Your task to perform on an android device: Show the shopping cart on walmart.com. Search for "razer naga" on walmart.com, select the first entry, and add it to the cart. Image 0: 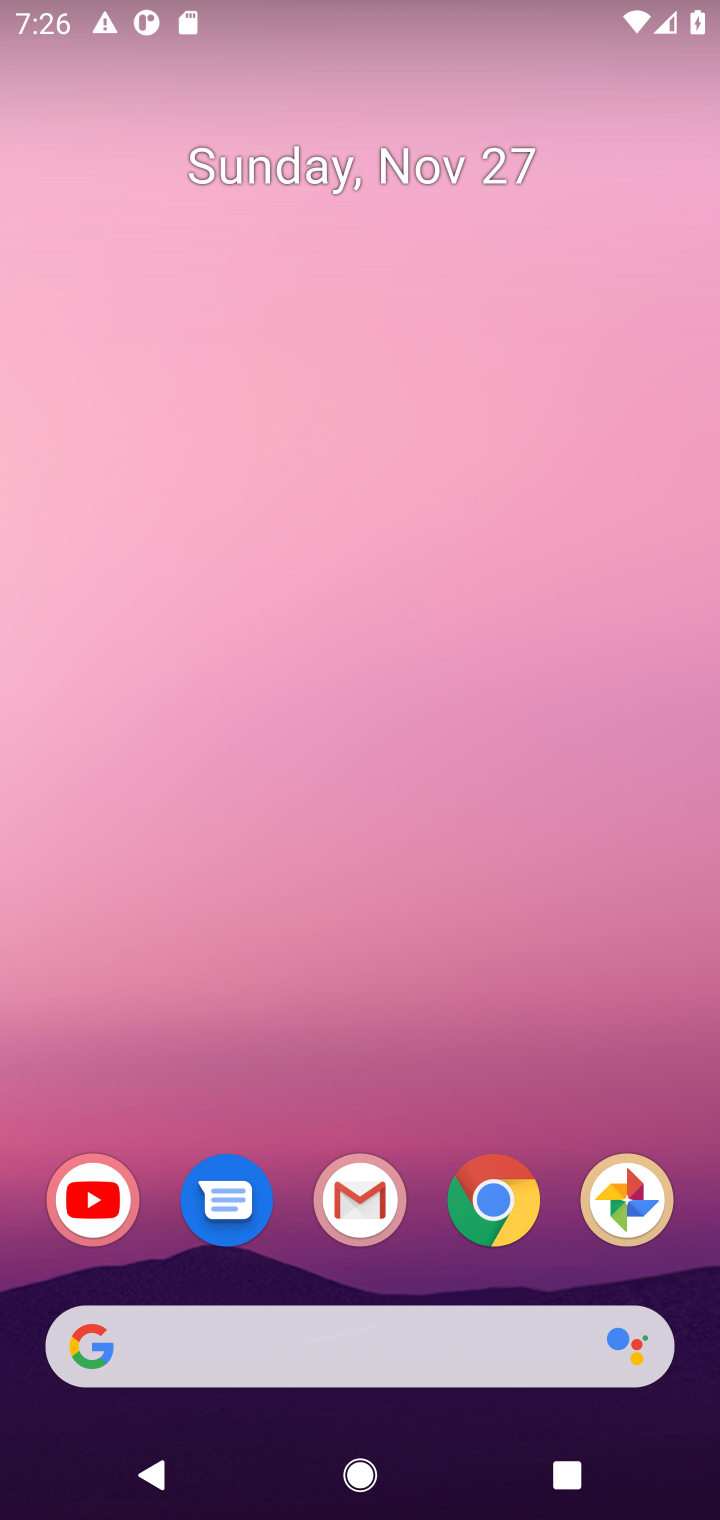
Step 0: click (494, 1213)
Your task to perform on an android device: Show the shopping cart on walmart.com. Search for "razer naga" on walmart.com, select the first entry, and add it to the cart. Image 1: 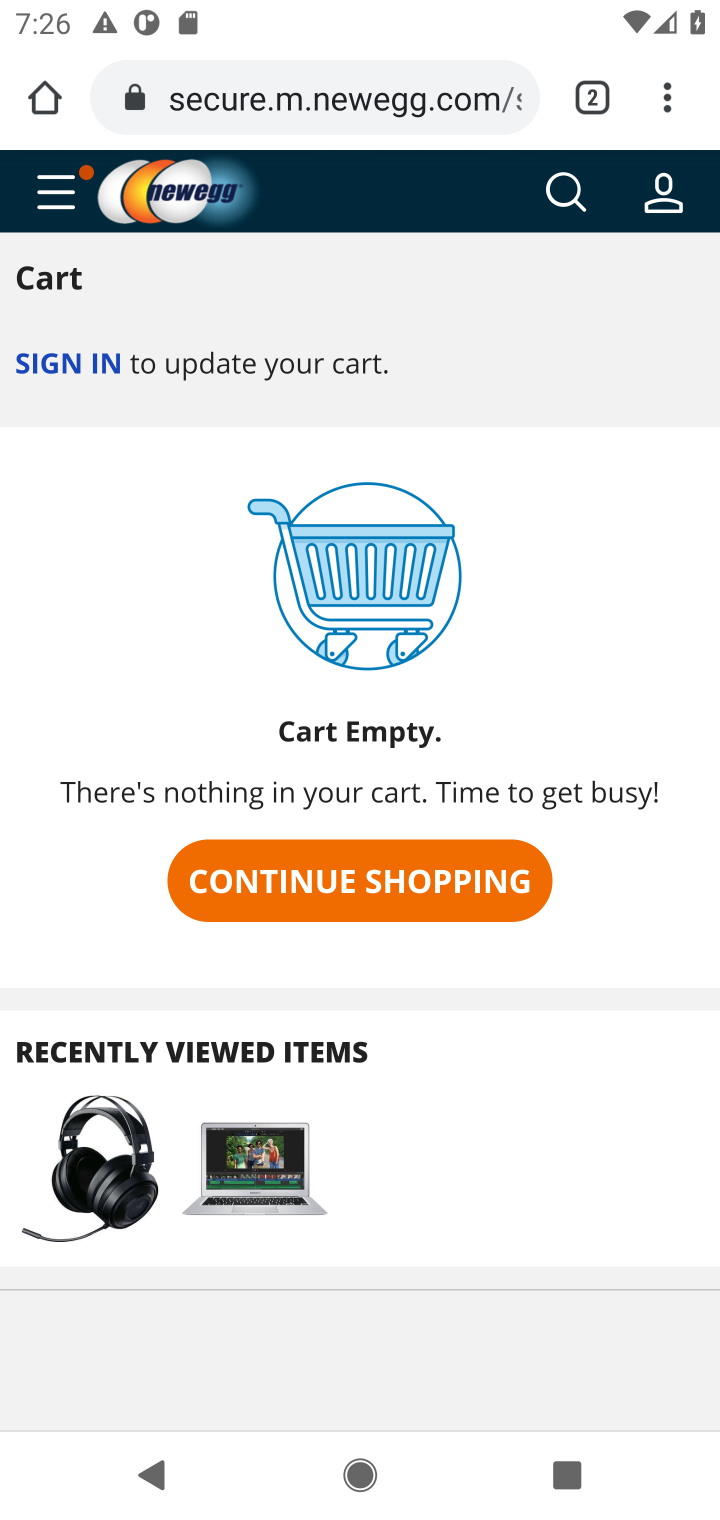
Step 1: click (324, 112)
Your task to perform on an android device: Show the shopping cart on walmart.com. Search for "razer naga" on walmart.com, select the first entry, and add it to the cart. Image 2: 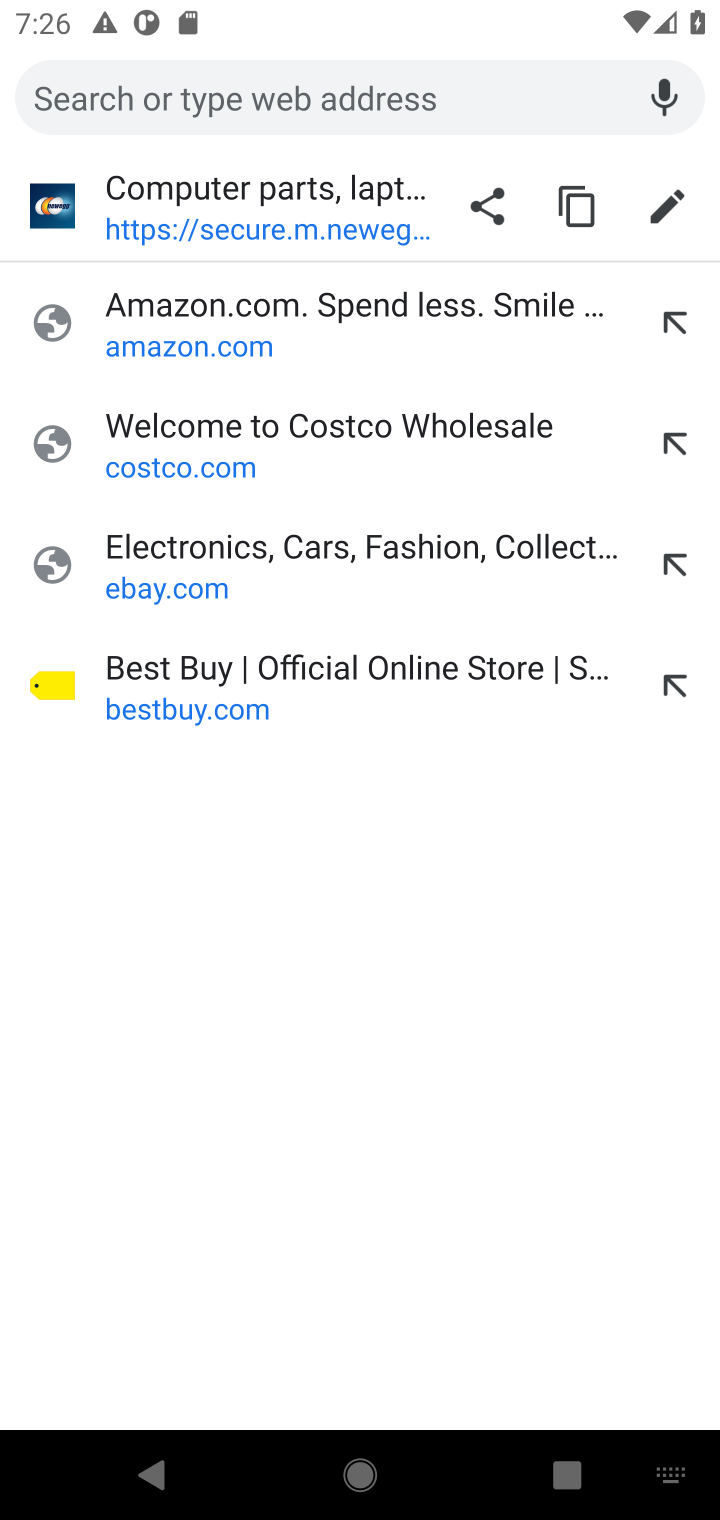
Step 2: type "walmart.com"
Your task to perform on an android device: Show the shopping cart on walmart.com. Search for "razer naga" on walmart.com, select the first entry, and add it to the cart. Image 3: 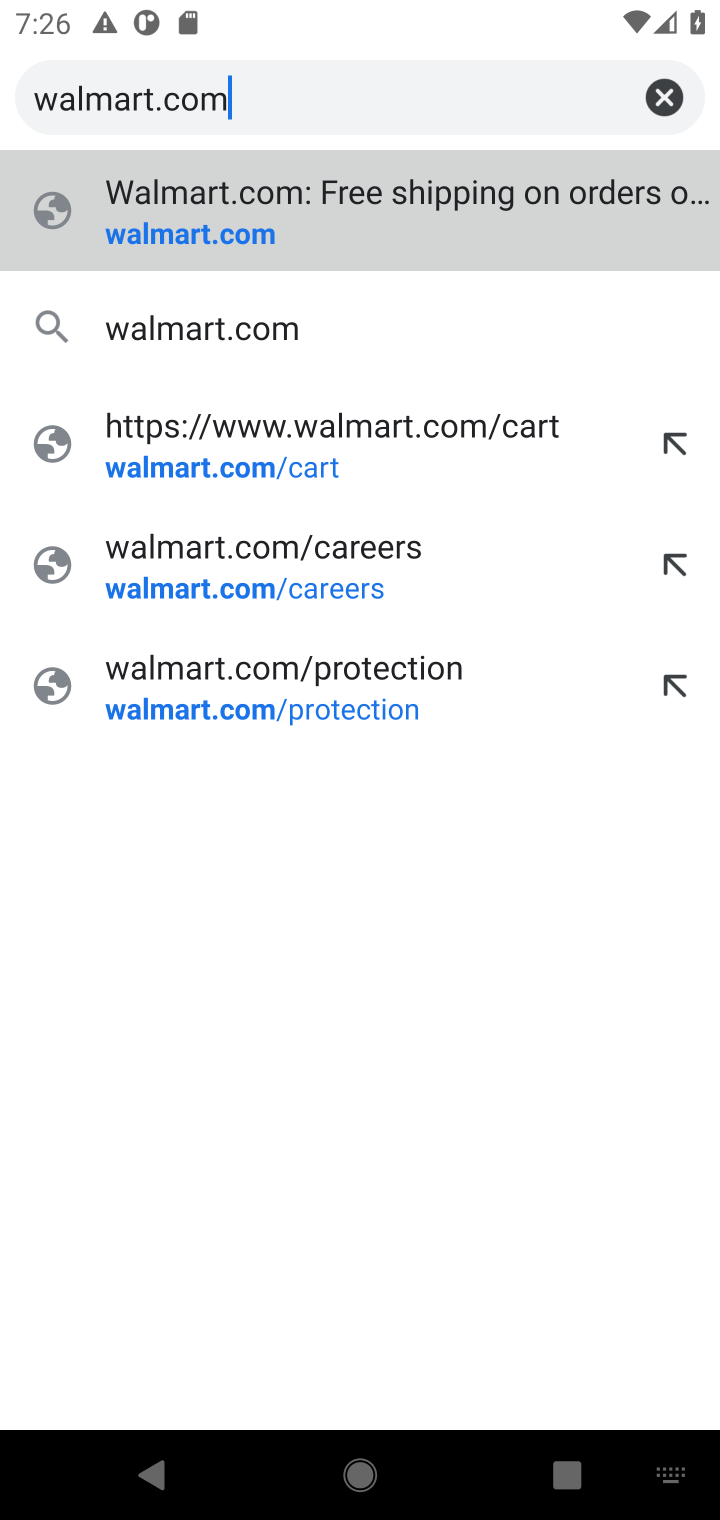
Step 3: click (236, 231)
Your task to perform on an android device: Show the shopping cart on walmart.com. Search for "razer naga" on walmart.com, select the first entry, and add it to the cart. Image 4: 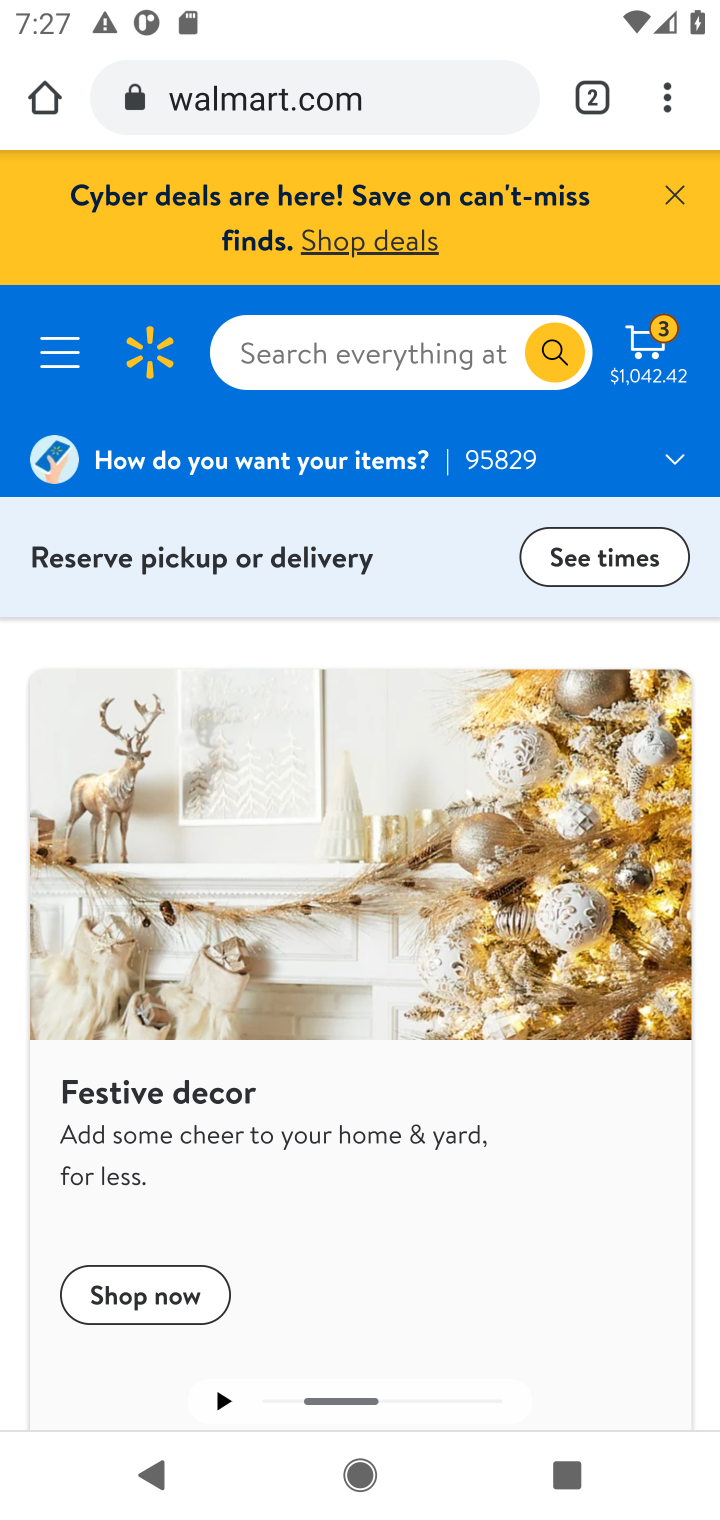
Step 4: click (636, 358)
Your task to perform on an android device: Show the shopping cart on walmart.com. Search for "razer naga" on walmart.com, select the first entry, and add it to the cart. Image 5: 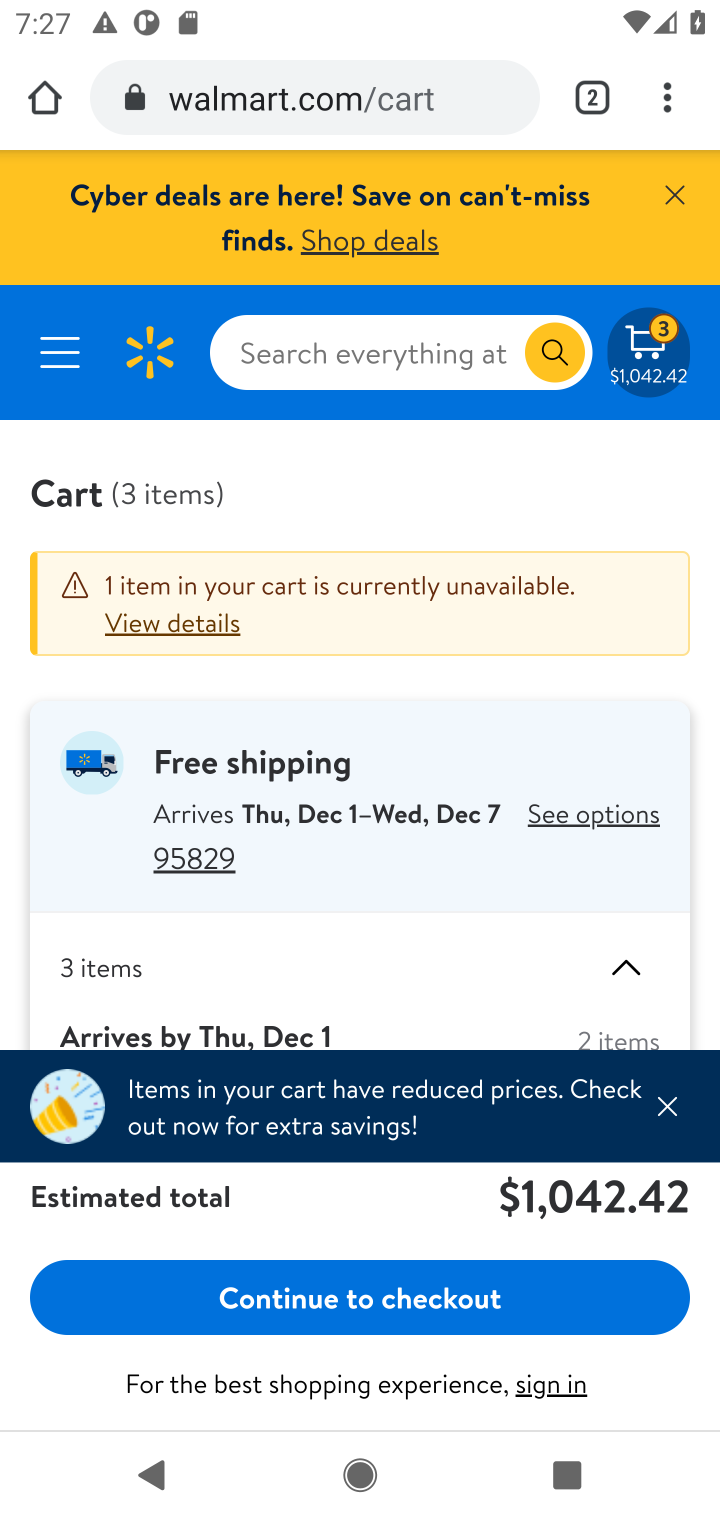
Step 5: click (395, 359)
Your task to perform on an android device: Show the shopping cart on walmart.com. Search for "razer naga" on walmart.com, select the first entry, and add it to the cart. Image 6: 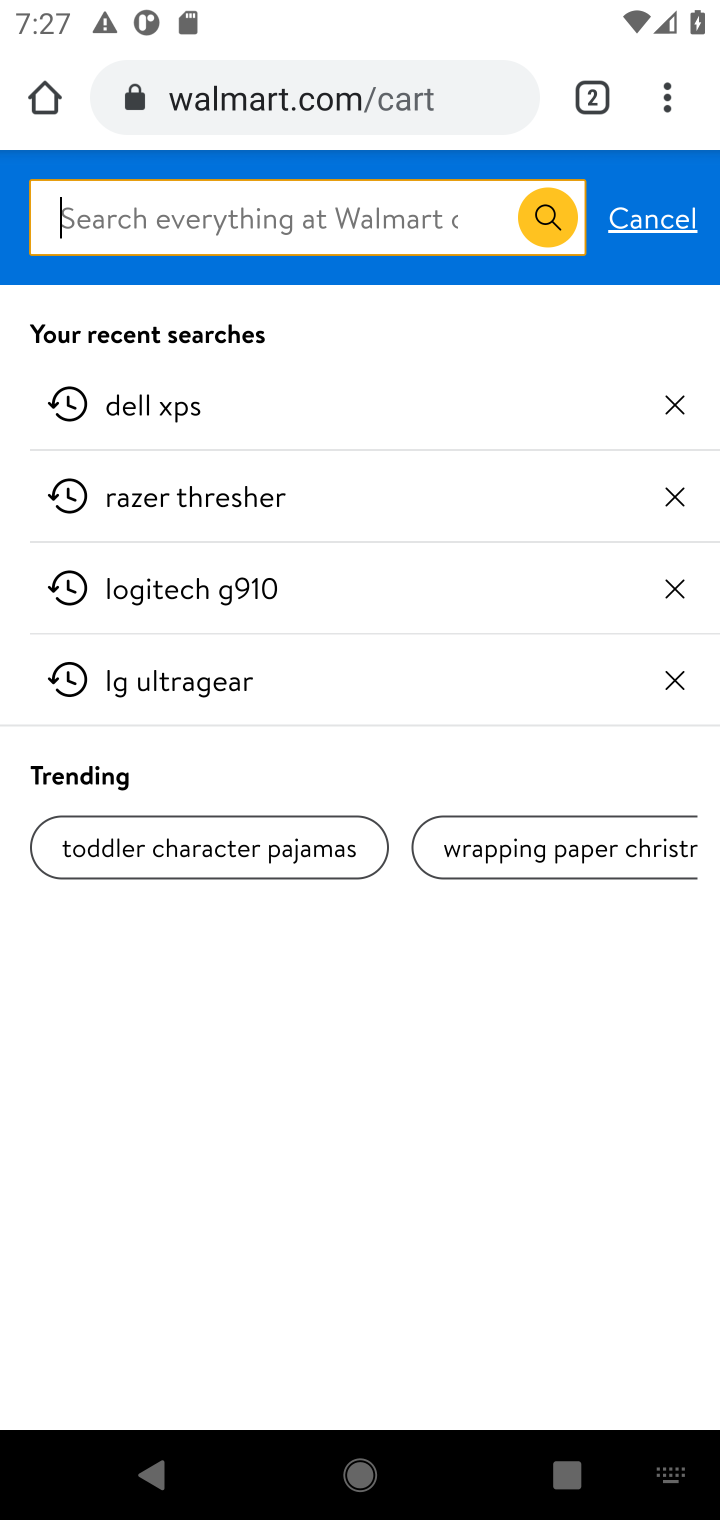
Step 6: type "razer naga "
Your task to perform on an android device: Show the shopping cart on walmart.com. Search for "razer naga" on walmart.com, select the first entry, and add it to the cart. Image 7: 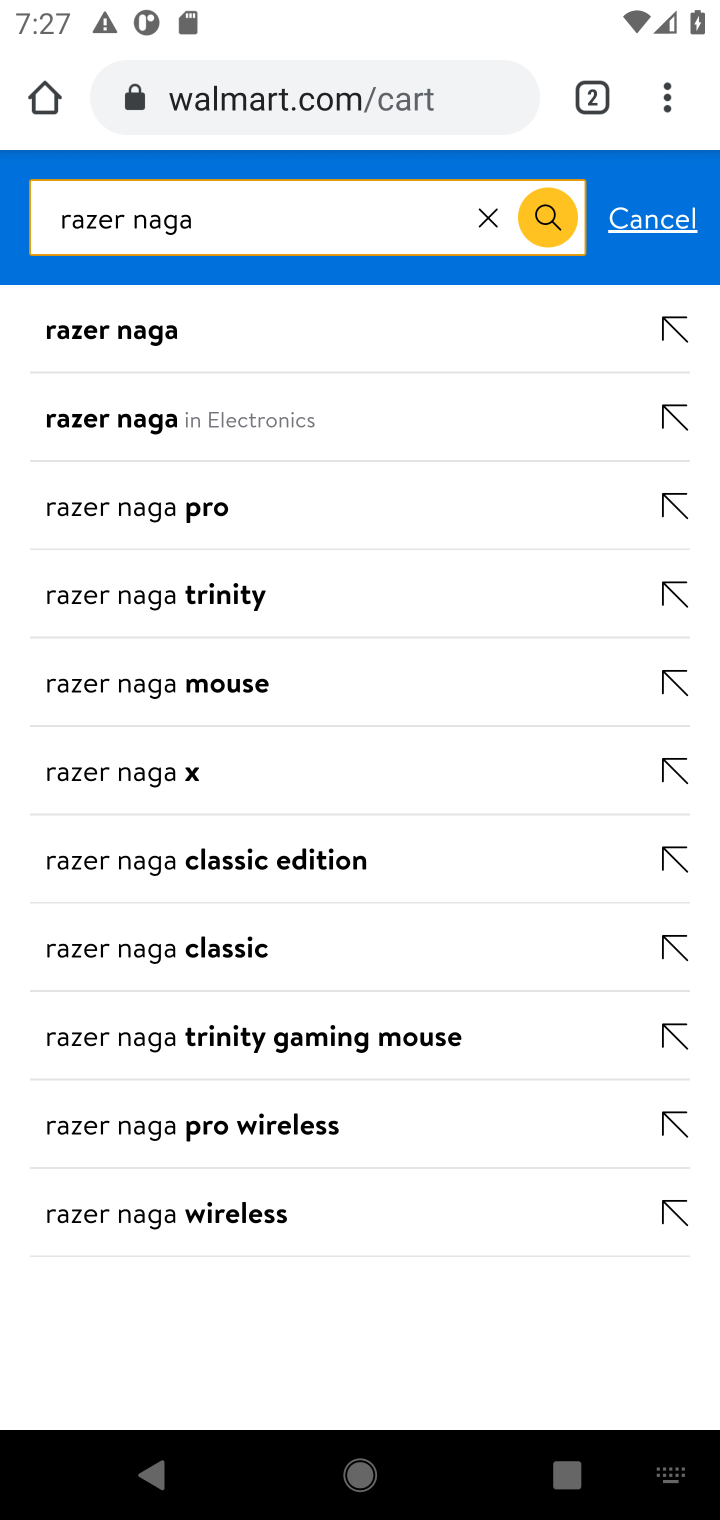
Step 7: click (108, 336)
Your task to perform on an android device: Show the shopping cart on walmart.com. Search for "razer naga" on walmart.com, select the first entry, and add it to the cart. Image 8: 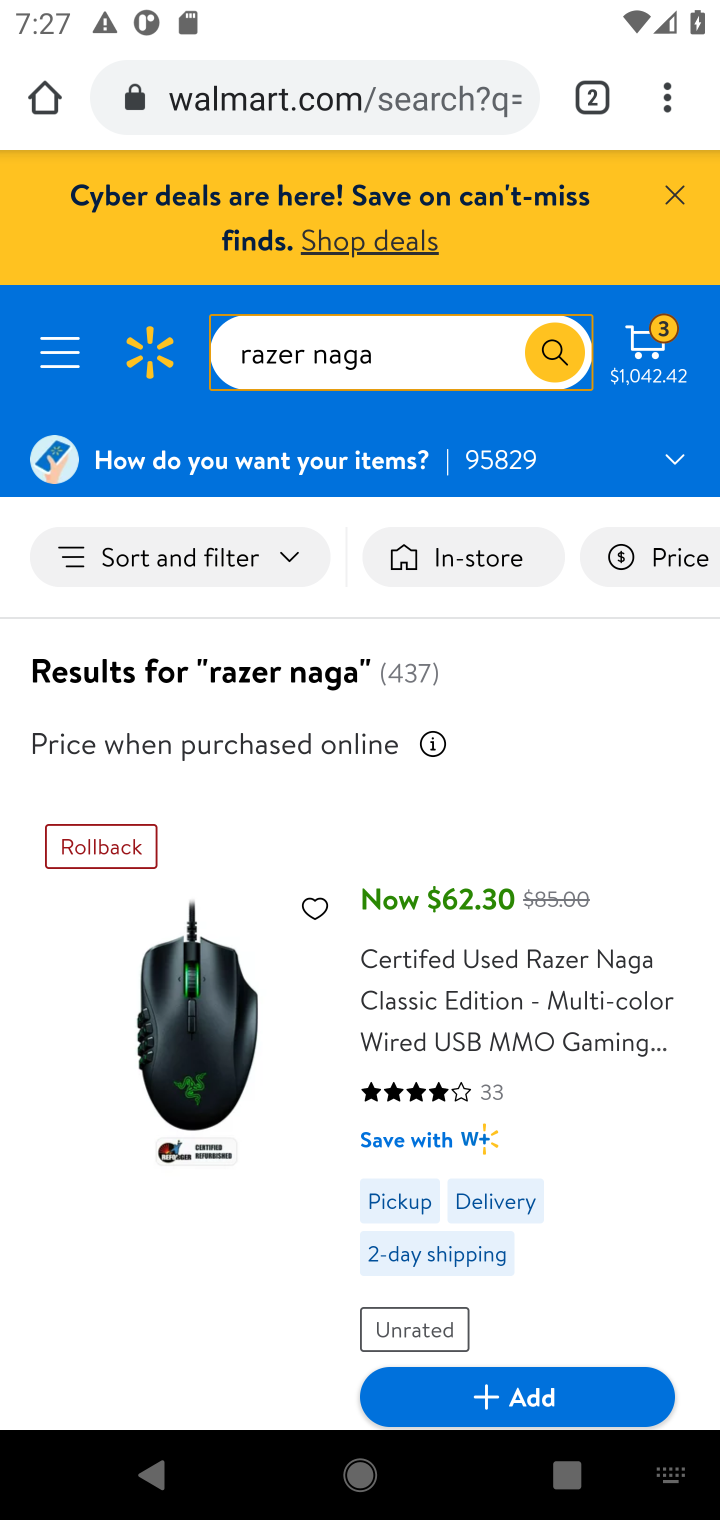
Step 8: click (539, 1399)
Your task to perform on an android device: Show the shopping cart on walmart.com. Search for "razer naga" on walmart.com, select the first entry, and add it to the cart. Image 9: 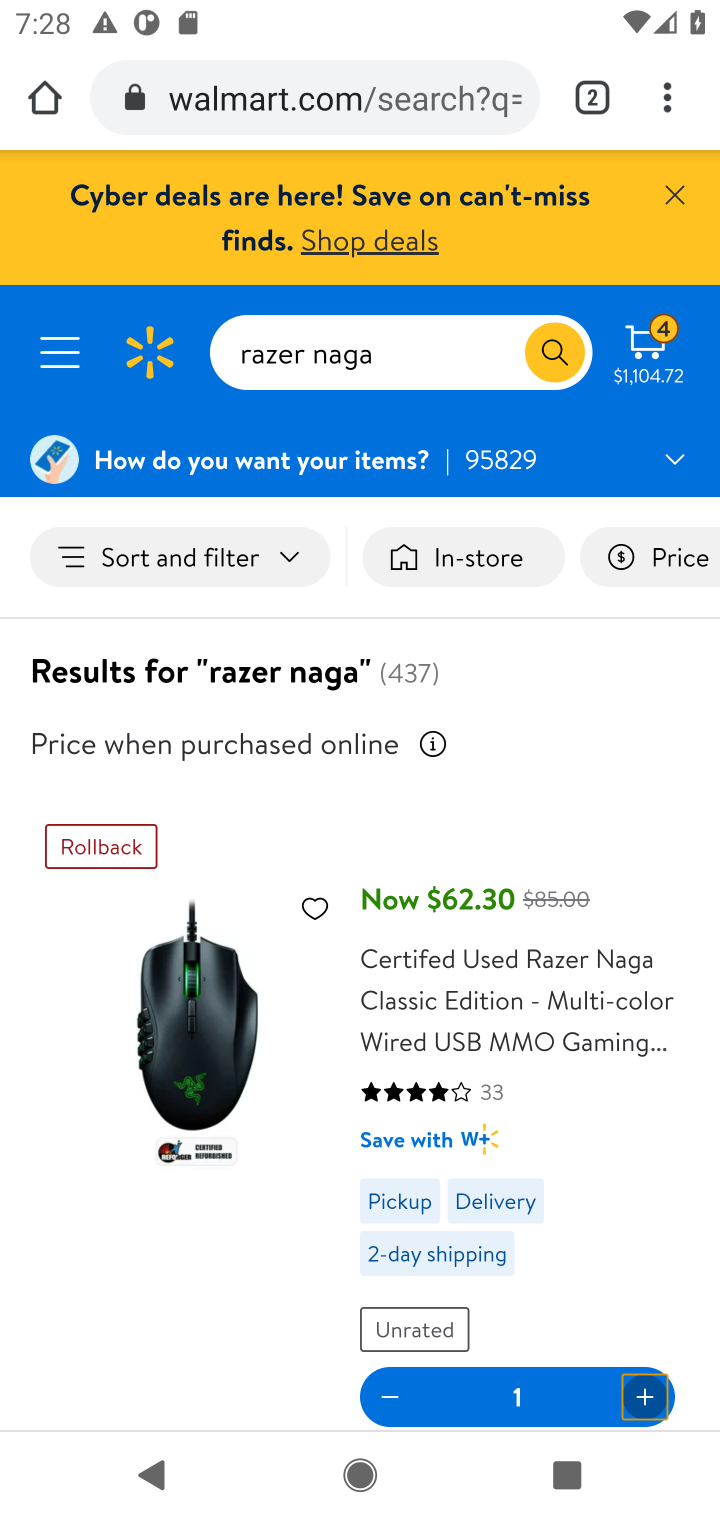
Step 9: task complete